Your task to perform on an android device: toggle javascript in the chrome app Image 0: 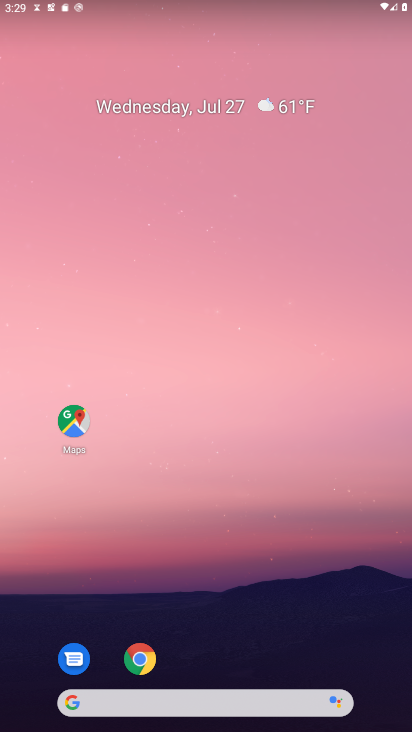
Step 0: drag from (193, 700) to (134, 16)
Your task to perform on an android device: toggle javascript in the chrome app Image 1: 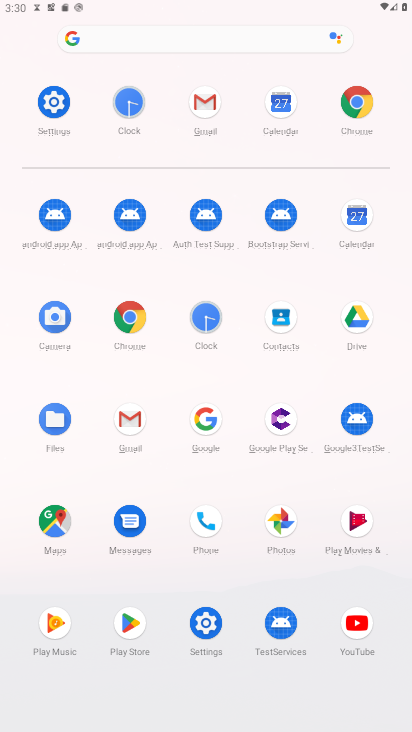
Step 1: click (128, 332)
Your task to perform on an android device: toggle javascript in the chrome app Image 2: 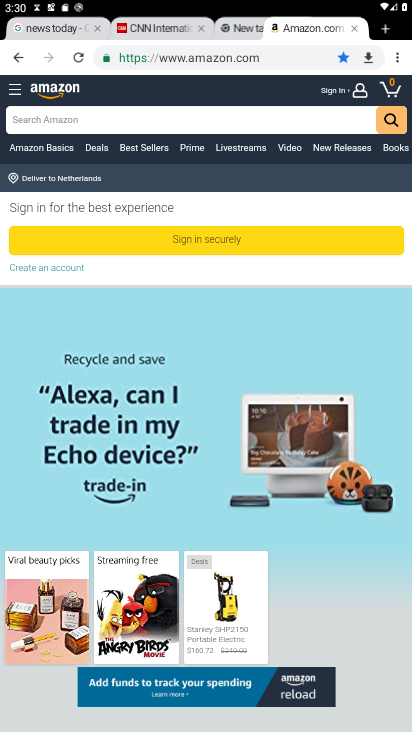
Step 2: drag from (399, 58) to (295, 380)
Your task to perform on an android device: toggle javascript in the chrome app Image 3: 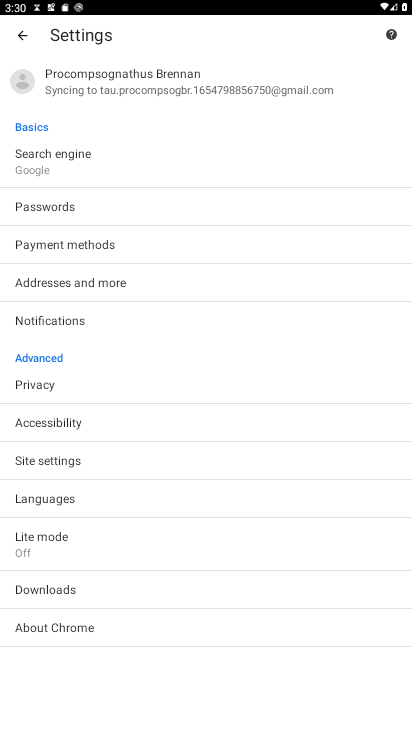
Step 3: click (93, 464)
Your task to perform on an android device: toggle javascript in the chrome app Image 4: 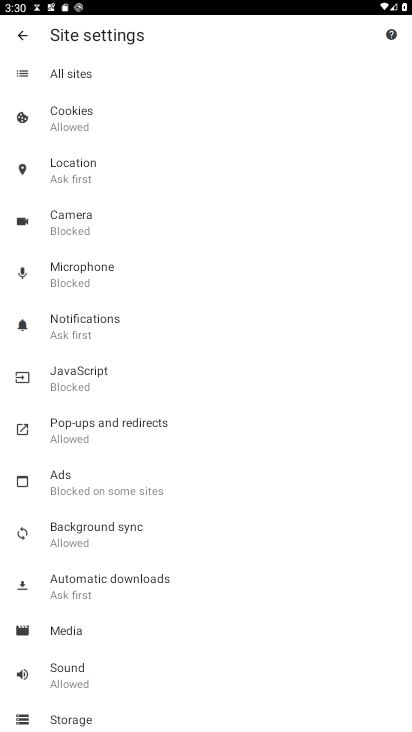
Step 4: click (102, 366)
Your task to perform on an android device: toggle javascript in the chrome app Image 5: 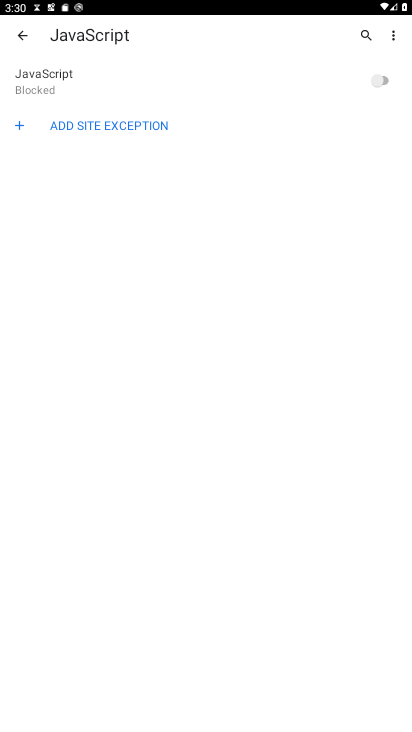
Step 5: click (385, 77)
Your task to perform on an android device: toggle javascript in the chrome app Image 6: 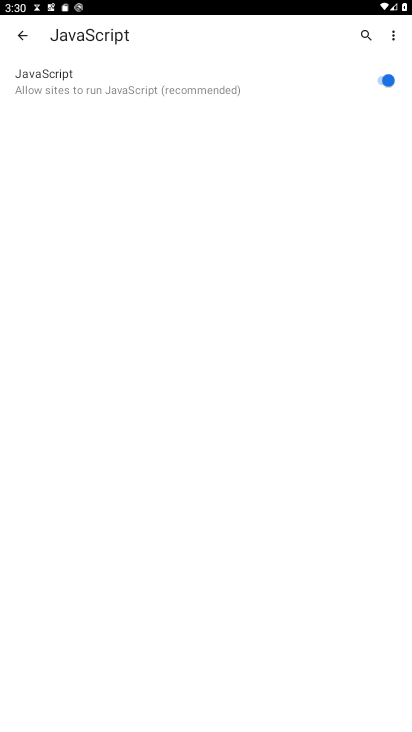
Step 6: task complete